Your task to perform on an android device: What's the weather like in Los Angeles? Image 0: 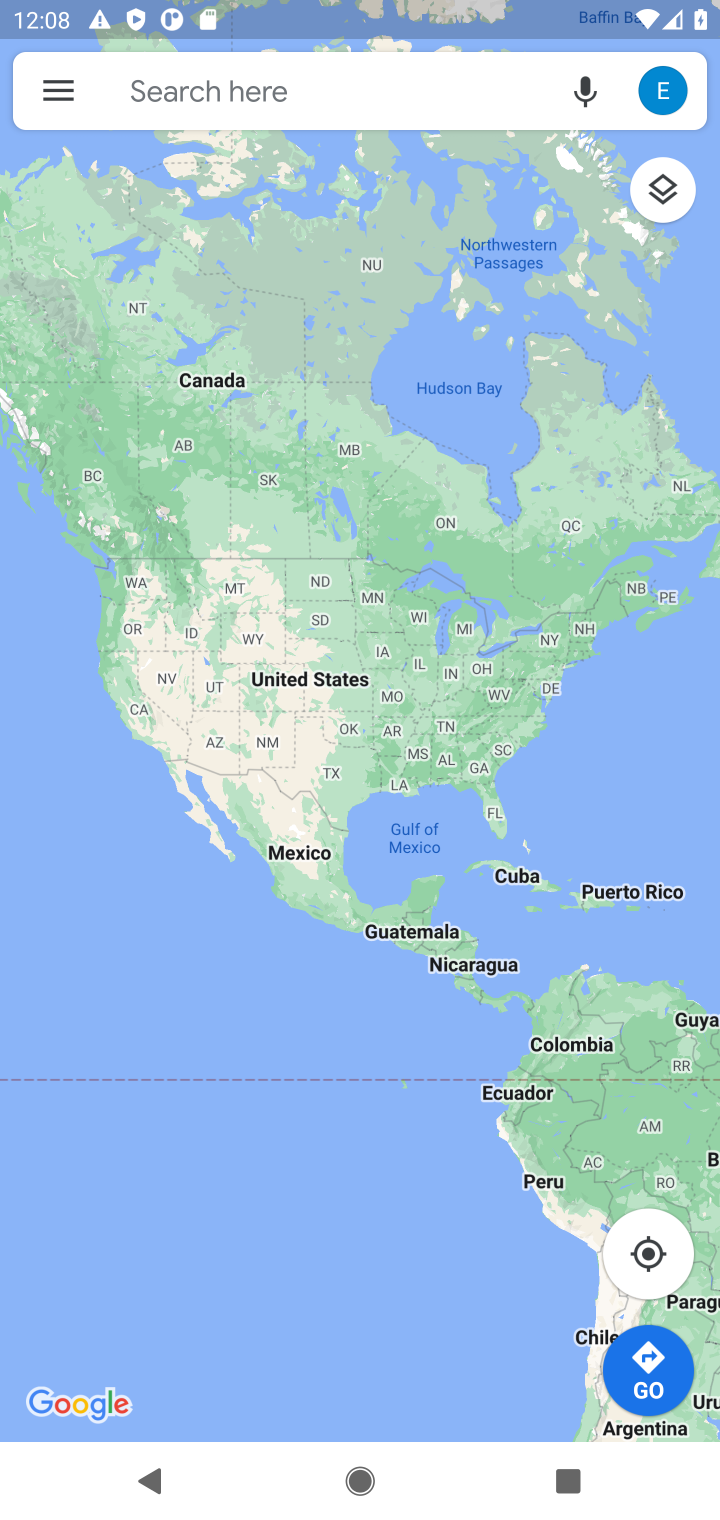
Step 0: press home button
Your task to perform on an android device: What's the weather like in Los Angeles? Image 1: 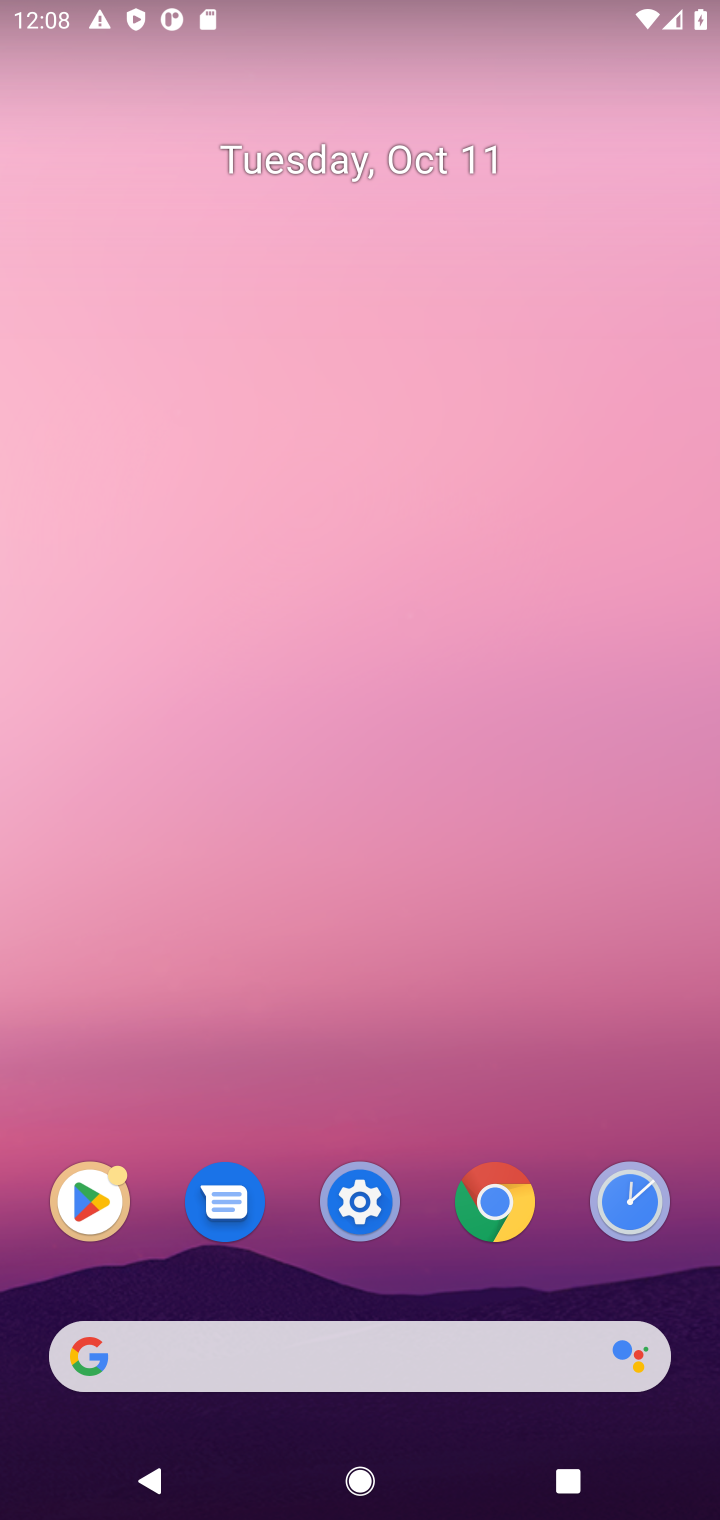
Step 1: click (89, 1359)
Your task to perform on an android device: What's the weather like in Los Angeles? Image 2: 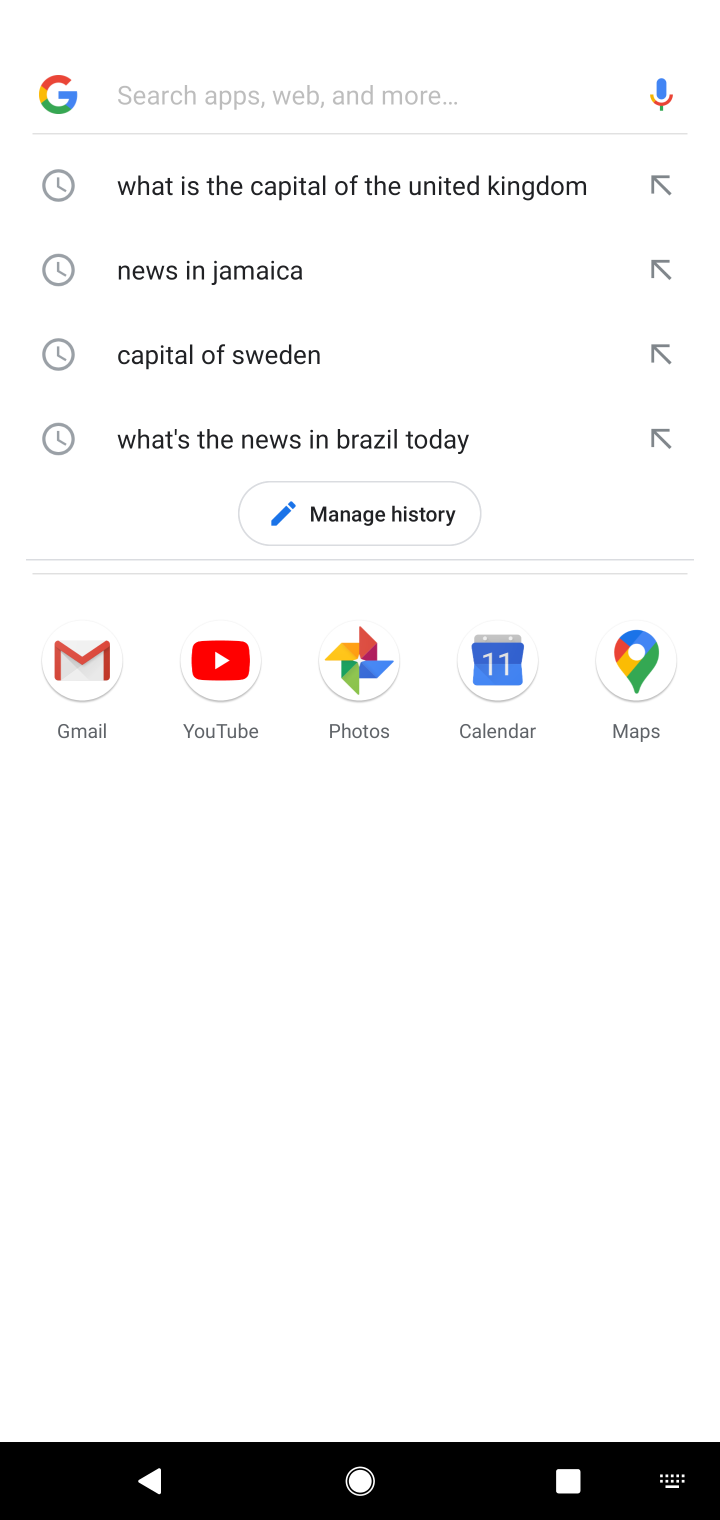
Step 2: type "What's the weather like in Los Angeles?"
Your task to perform on an android device: What's the weather like in Los Angeles? Image 3: 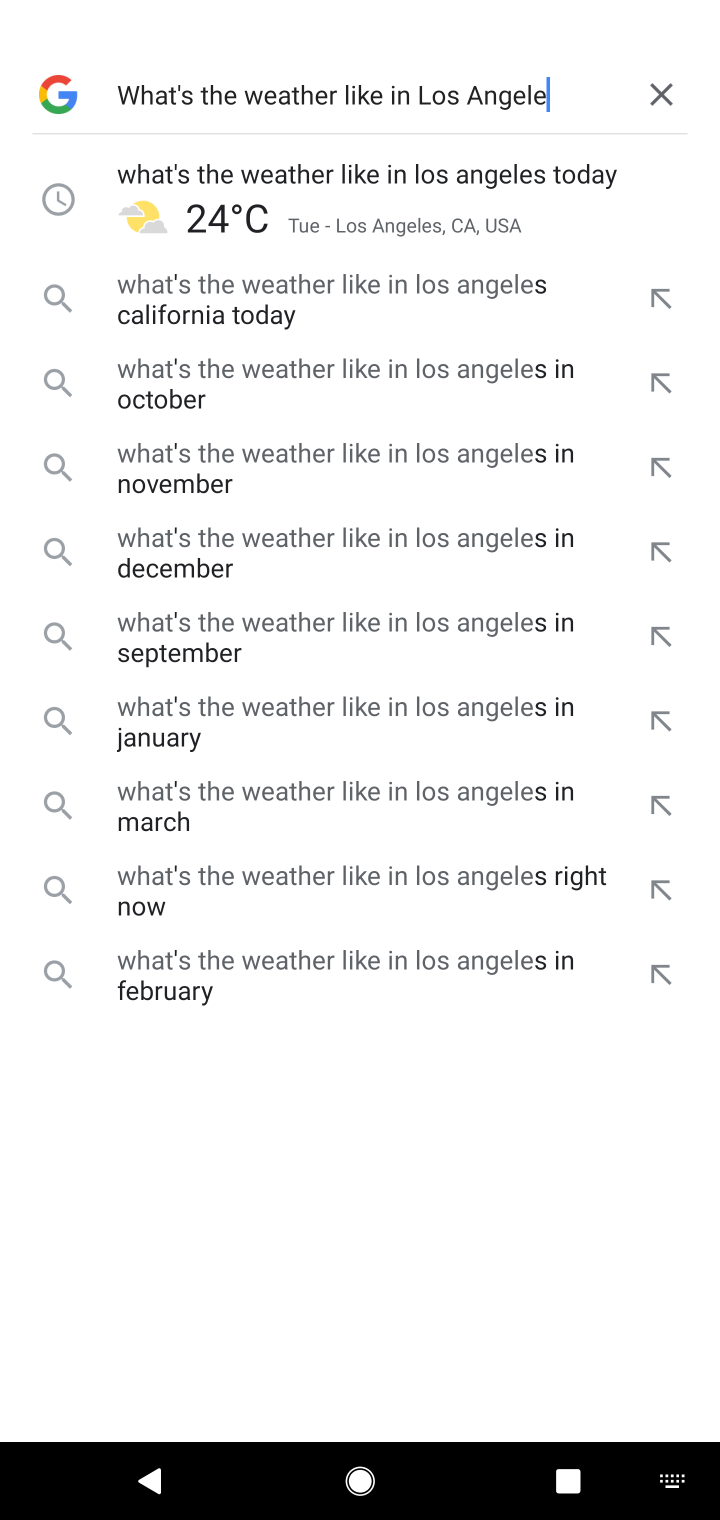
Step 3: task complete